Your task to perform on an android device: Go to location settings Image 0: 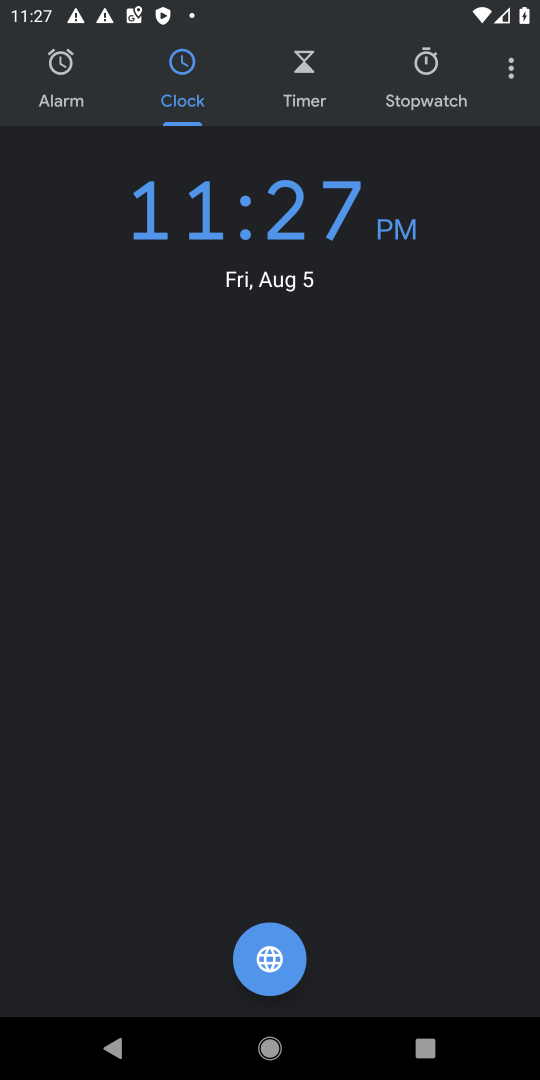
Step 0: press home button
Your task to perform on an android device: Go to location settings Image 1: 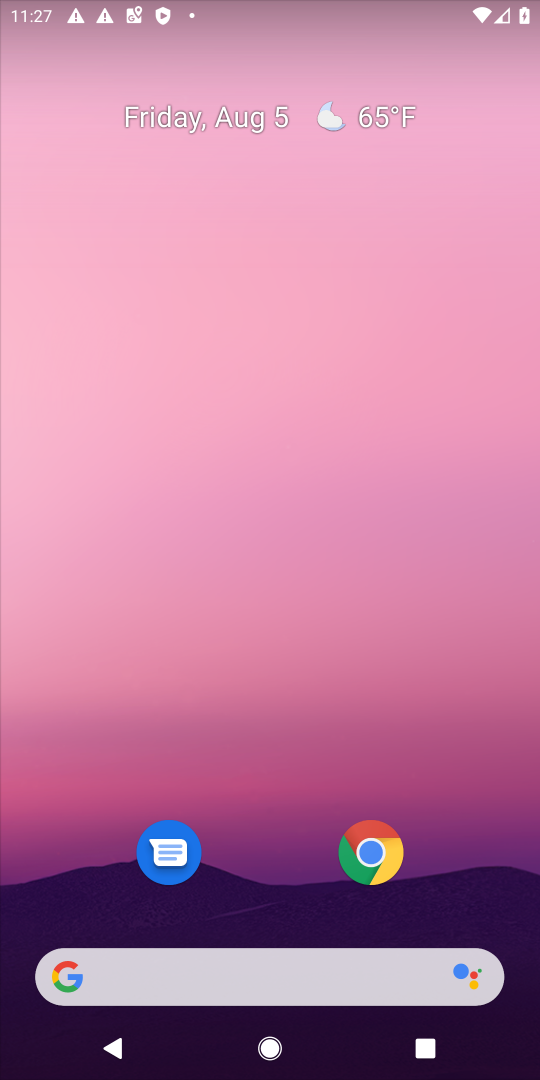
Step 1: drag from (344, 1010) to (315, 362)
Your task to perform on an android device: Go to location settings Image 2: 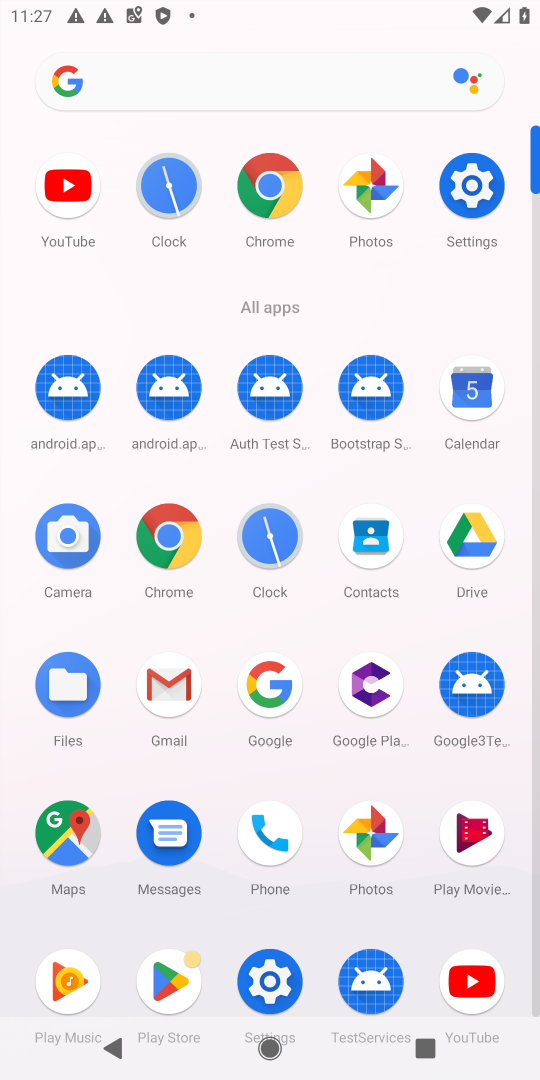
Step 2: click (468, 176)
Your task to perform on an android device: Go to location settings Image 3: 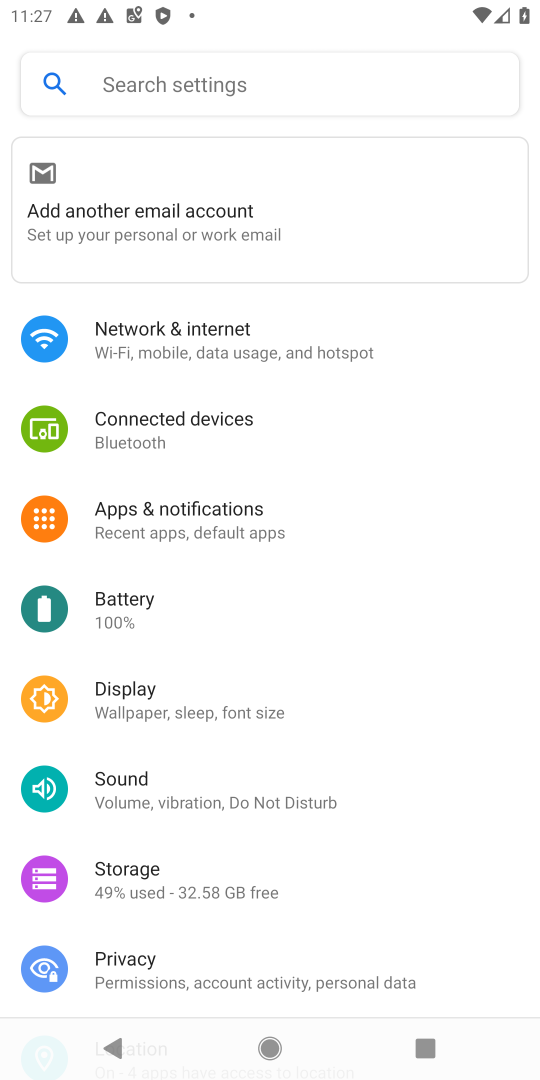
Step 3: click (188, 98)
Your task to perform on an android device: Go to location settings Image 4: 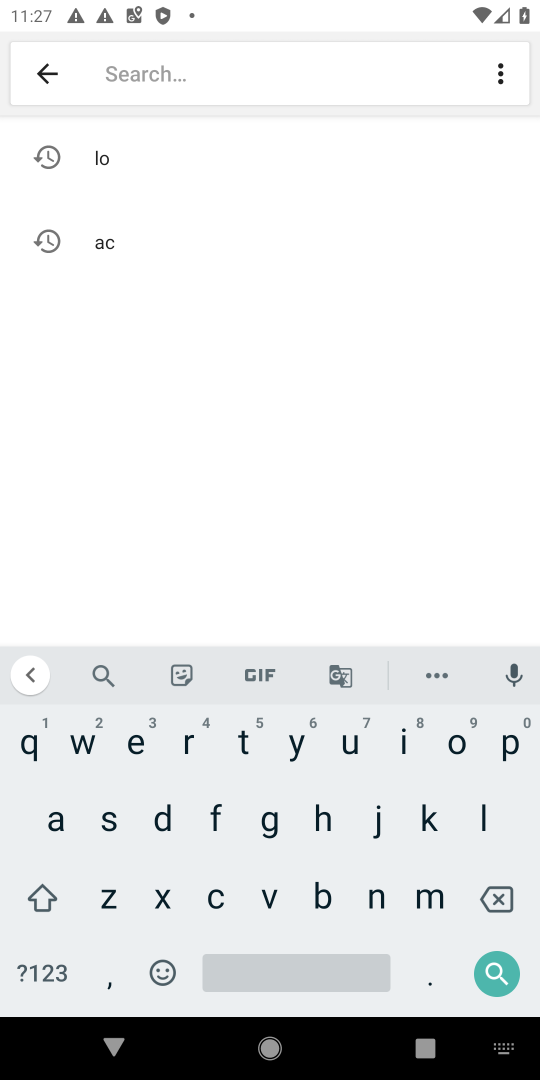
Step 4: click (154, 163)
Your task to perform on an android device: Go to location settings Image 5: 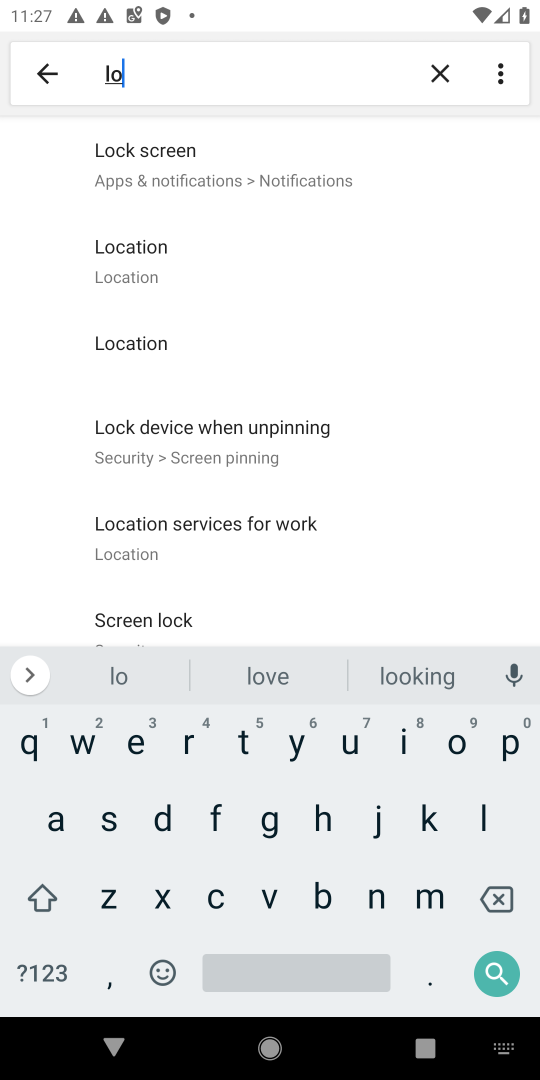
Step 5: click (146, 266)
Your task to perform on an android device: Go to location settings Image 6: 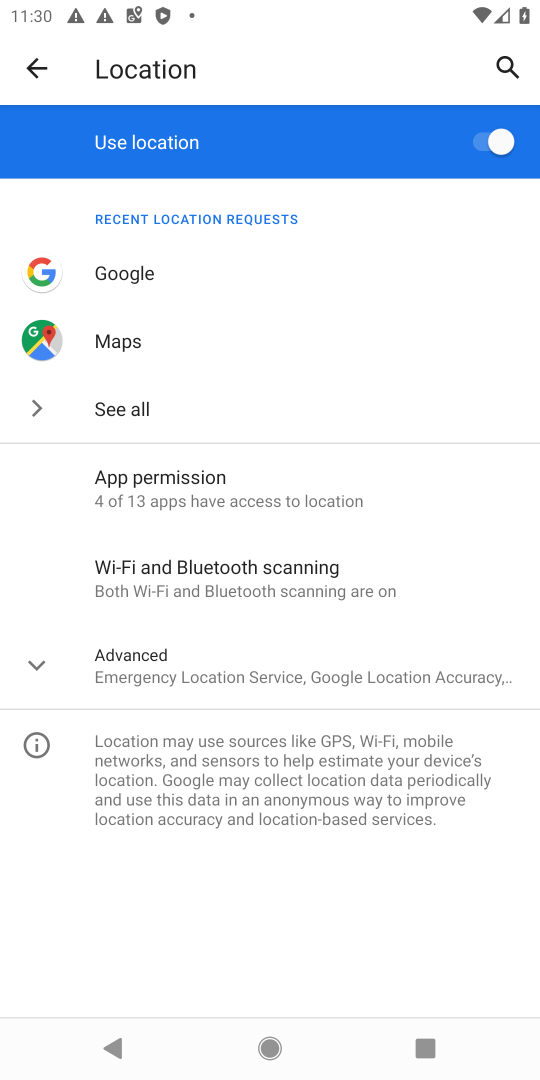
Step 6: task complete